Your task to perform on an android device: change the clock display to analog Image 0: 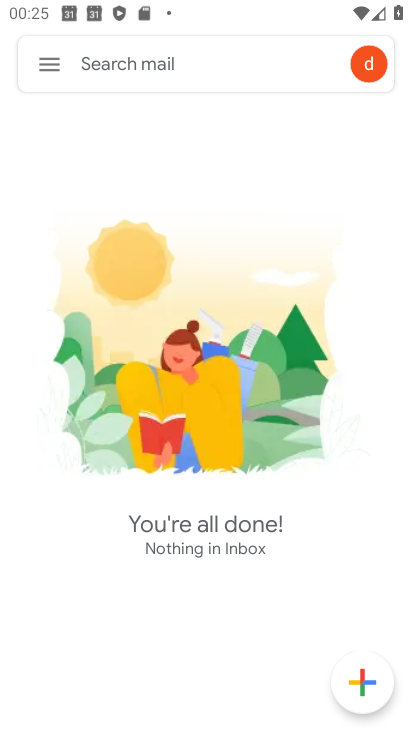
Step 0: press home button
Your task to perform on an android device: change the clock display to analog Image 1: 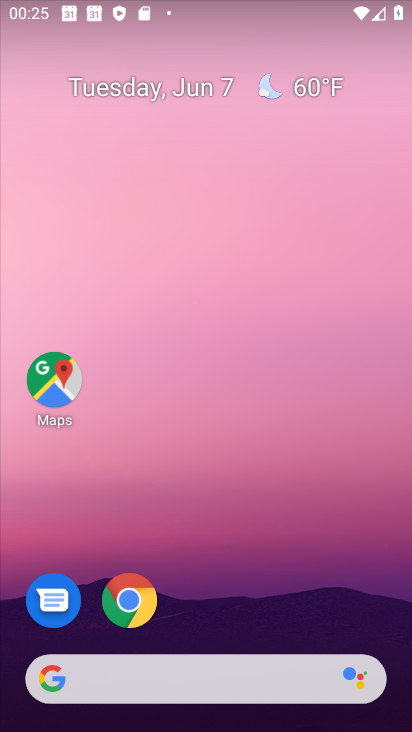
Step 1: drag from (221, 693) to (226, 218)
Your task to perform on an android device: change the clock display to analog Image 2: 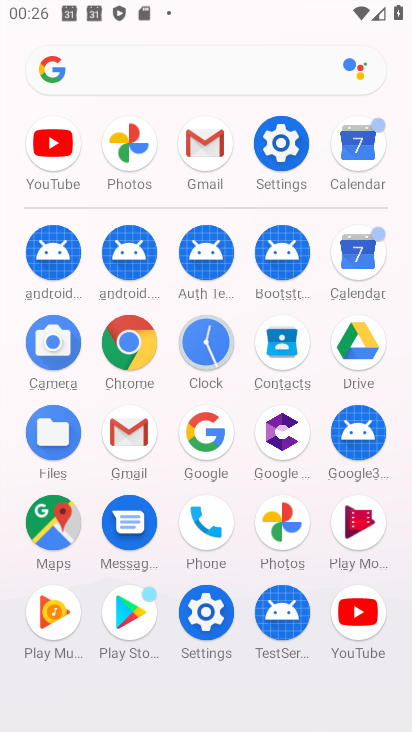
Step 2: click (191, 337)
Your task to perform on an android device: change the clock display to analog Image 3: 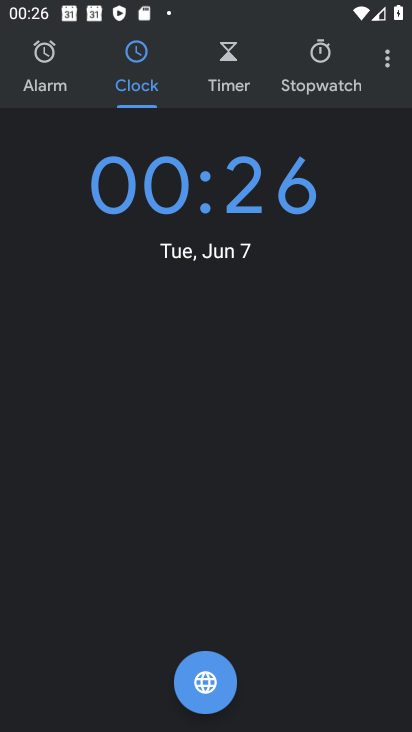
Step 3: click (389, 63)
Your task to perform on an android device: change the clock display to analog Image 4: 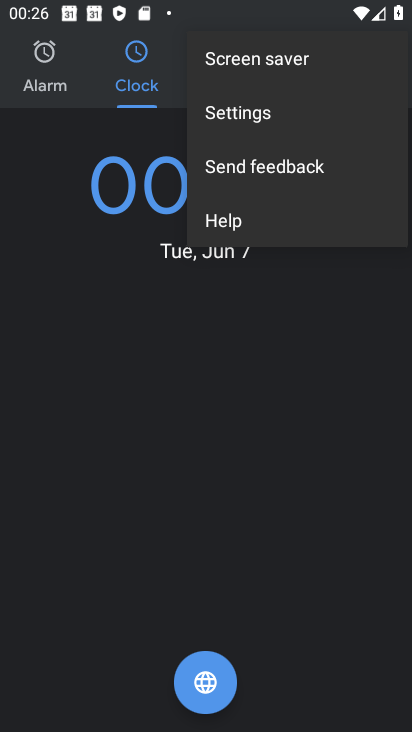
Step 4: click (246, 111)
Your task to perform on an android device: change the clock display to analog Image 5: 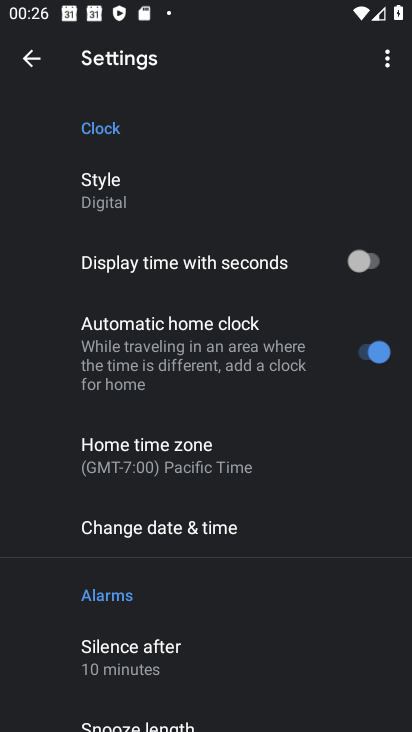
Step 5: click (111, 189)
Your task to perform on an android device: change the clock display to analog Image 6: 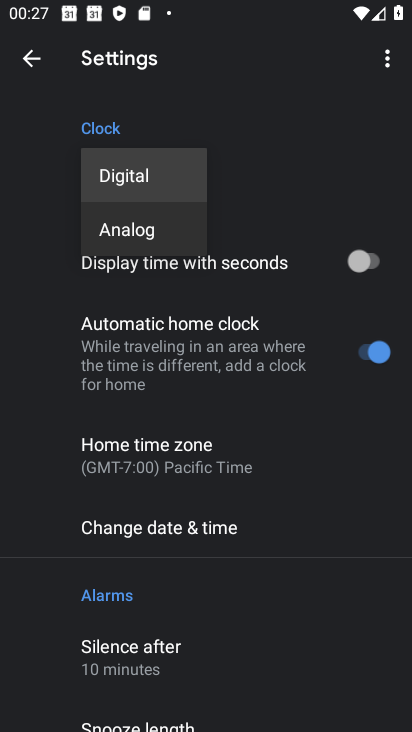
Step 6: click (138, 229)
Your task to perform on an android device: change the clock display to analog Image 7: 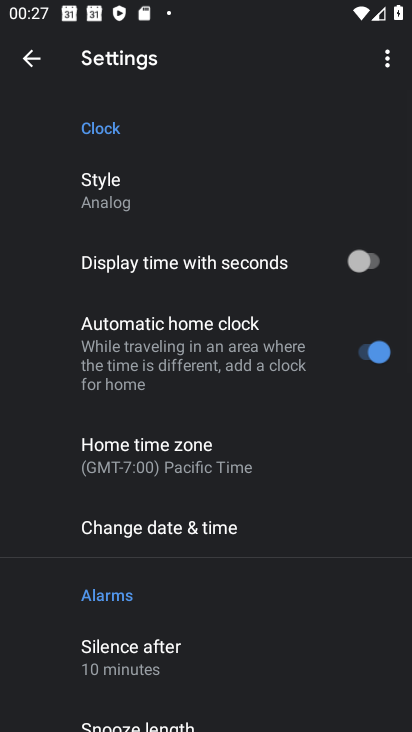
Step 7: task complete